Your task to perform on an android device: turn off picture-in-picture Image 0: 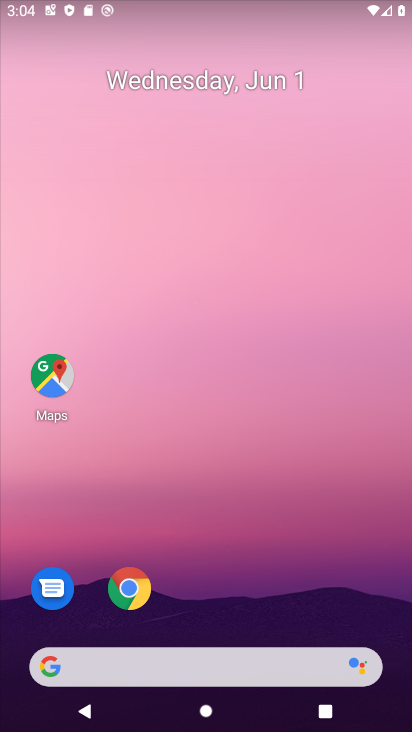
Step 0: click (121, 598)
Your task to perform on an android device: turn off picture-in-picture Image 1: 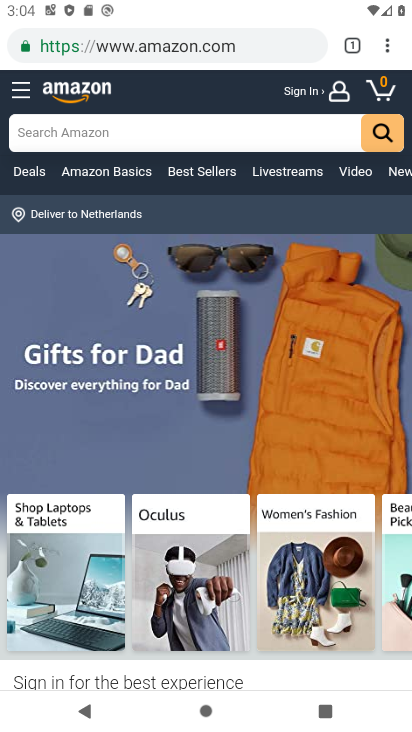
Step 1: click (393, 48)
Your task to perform on an android device: turn off picture-in-picture Image 2: 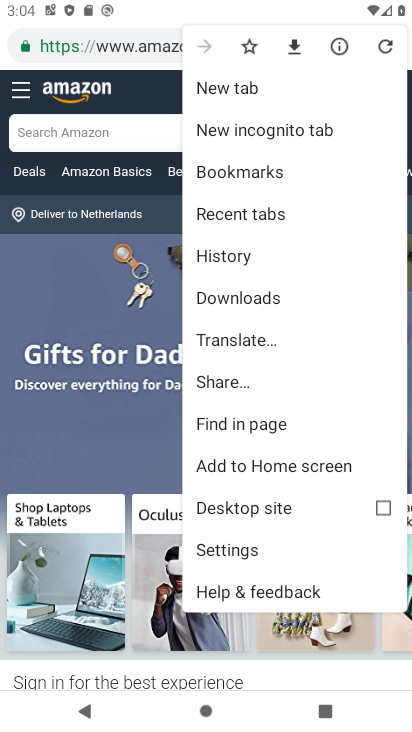
Step 2: click (277, 549)
Your task to perform on an android device: turn off picture-in-picture Image 3: 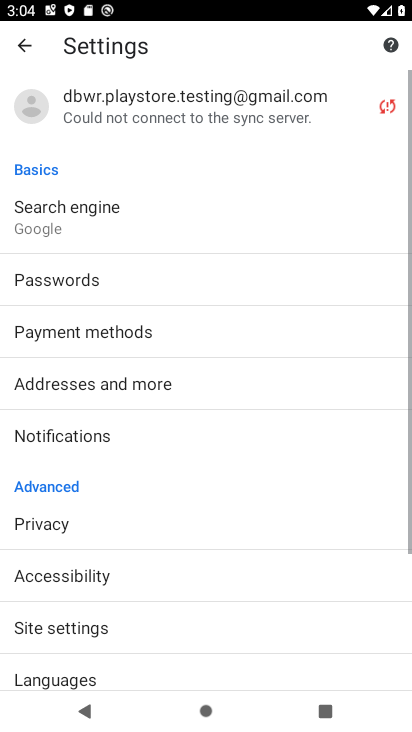
Step 3: drag from (283, 589) to (269, 50)
Your task to perform on an android device: turn off picture-in-picture Image 4: 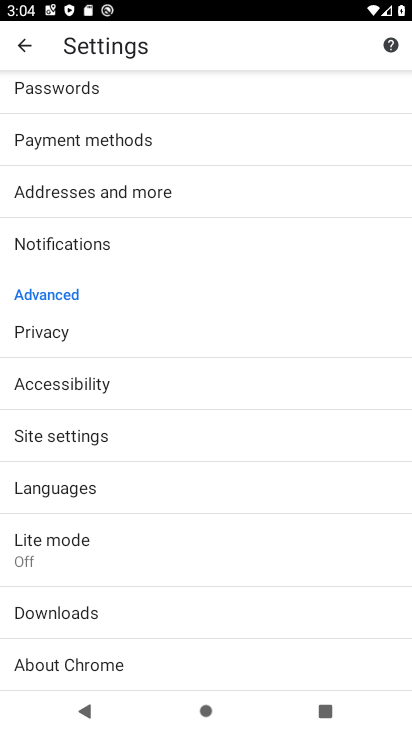
Step 4: press back button
Your task to perform on an android device: turn off picture-in-picture Image 5: 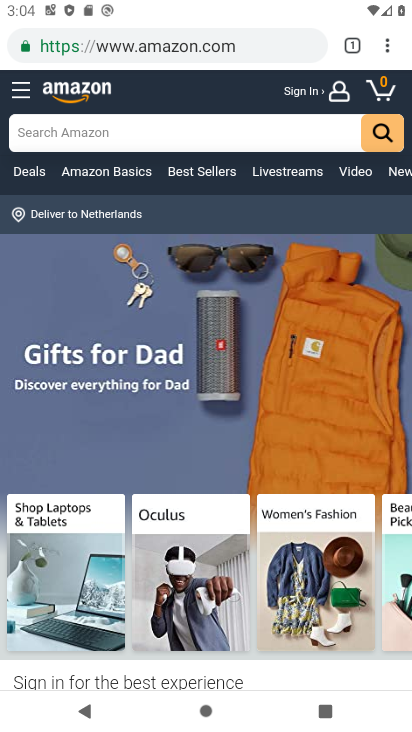
Step 5: press home button
Your task to perform on an android device: turn off picture-in-picture Image 6: 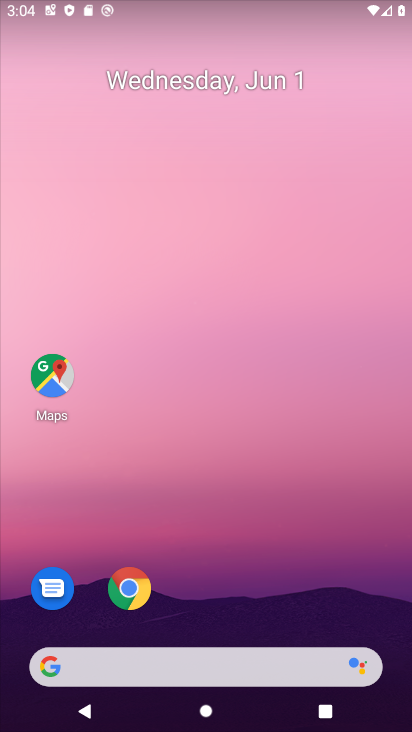
Step 6: click (139, 589)
Your task to perform on an android device: turn off picture-in-picture Image 7: 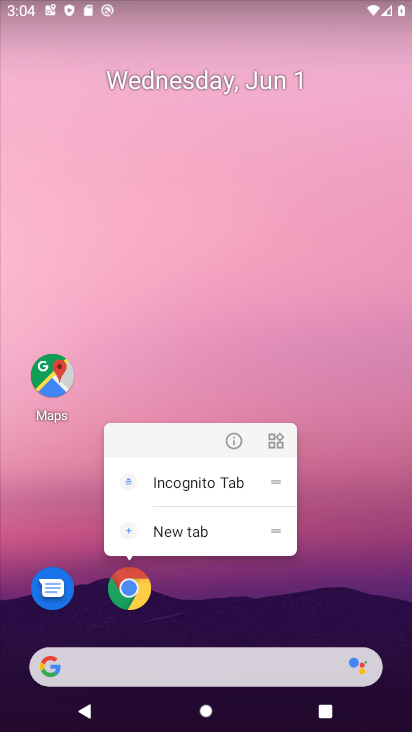
Step 7: click (233, 442)
Your task to perform on an android device: turn off picture-in-picture Image 8: 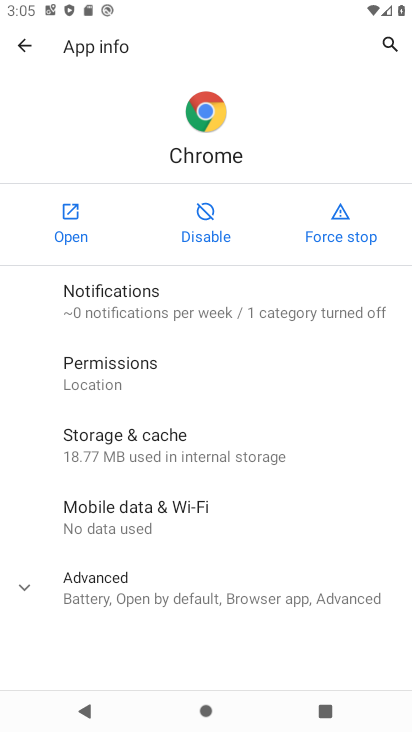
Step 8: click (96, 605)
Your task to perform on an android device: turn off picture-in-picture Image 9: 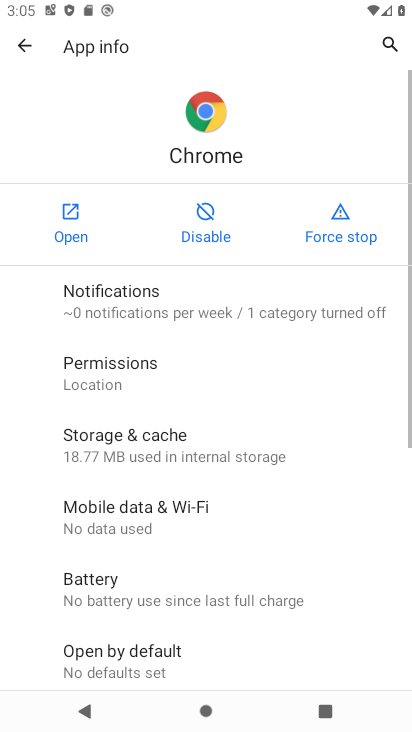
Step 9: drag from (158, 613) to (212, 196)
Your task to perform on an android device: turn off picture-in-picture Image 10: 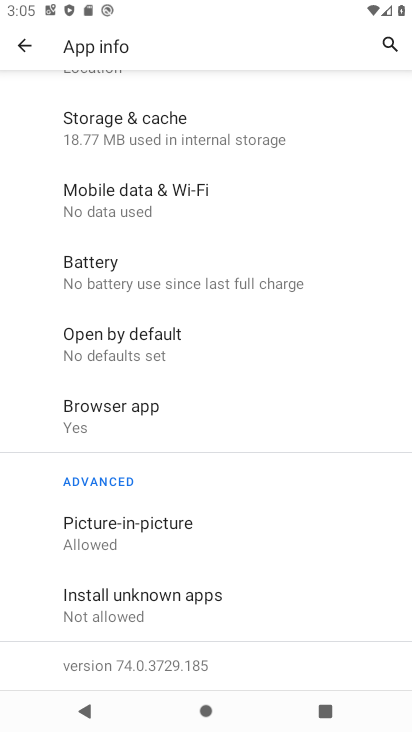
Step 10: click (184, 538)
Your task to perform on an android device: turn off picture-in-picture Image 11: 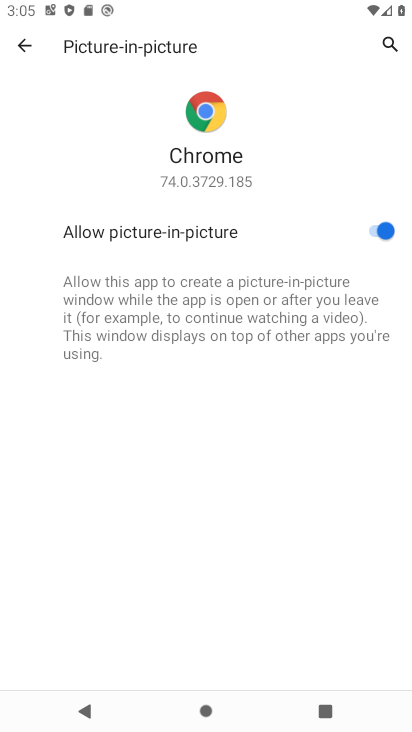
Step 11: click (369, 233)
Your task to perform on an android device: turn off picture-in-picture Image 12: 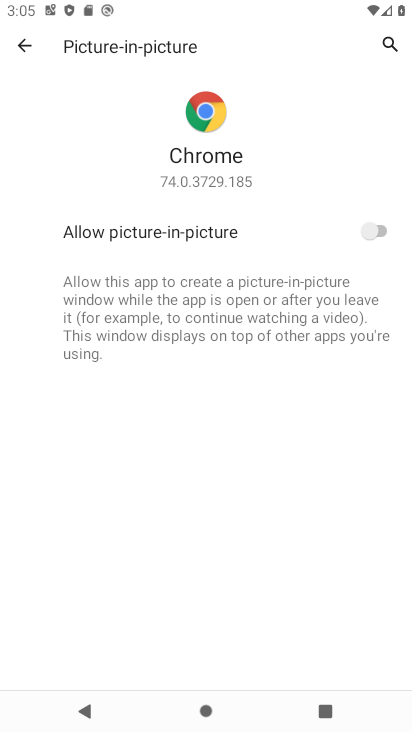
Step 12: task complete